Your task to perform on an android device: Show me popular videos on Youtube Image 0: 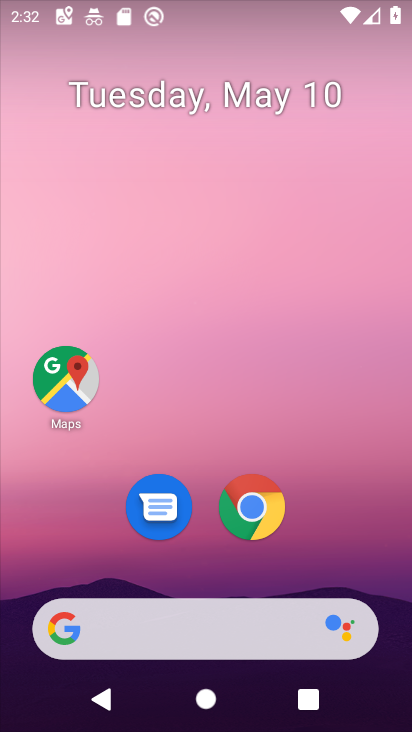
Step 0: drag from (218, 572) to (280, 212)
Your task to perform on an android device: Show me popular videos on Youtube Image 1: 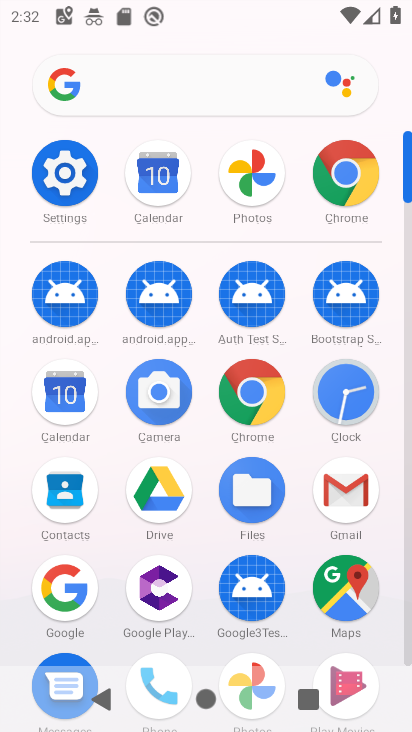
Step 1: drag from (297, 647) to (285, 335)
Your task to perform on an android device: Show me popular videos on Youtube Image 2: 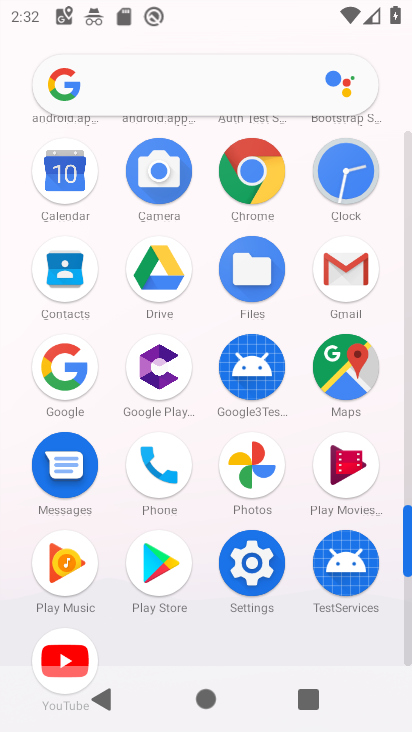
Step 2: click (58, 645)
Your task to perform on an android device: Show me popular videos on Youtube Image 3: 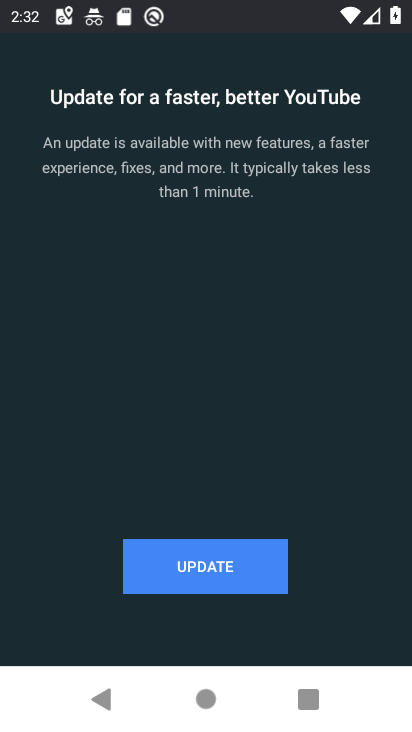
Step 3: click (183, 557)
Your task to perform on an android device: Show me popular videos on Youtube Image 4: 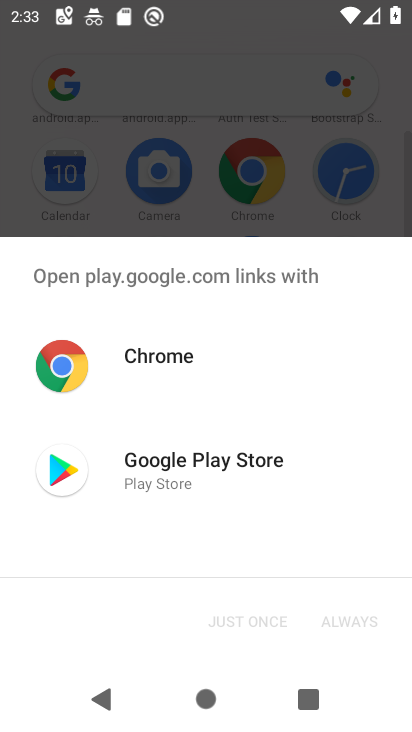
Step 4: click (137, 458)
Your task to perform on an android device: Show me popular videos on Youtube Image 5: 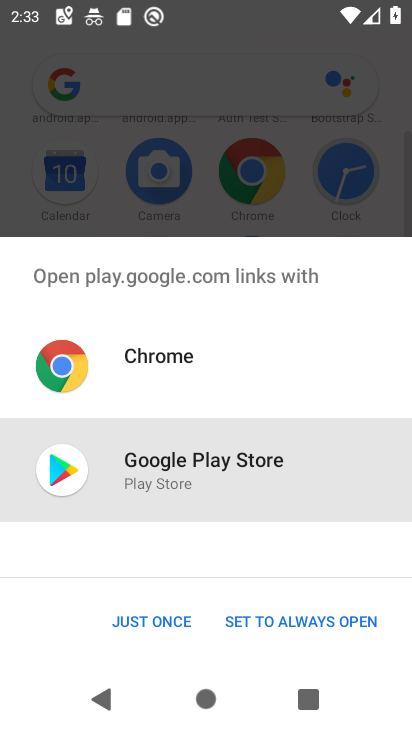
Step 5: drag from (253, 615) to (57, 612)
Your task to perform on an android device: Show me popular videos on Youtube Image 6: 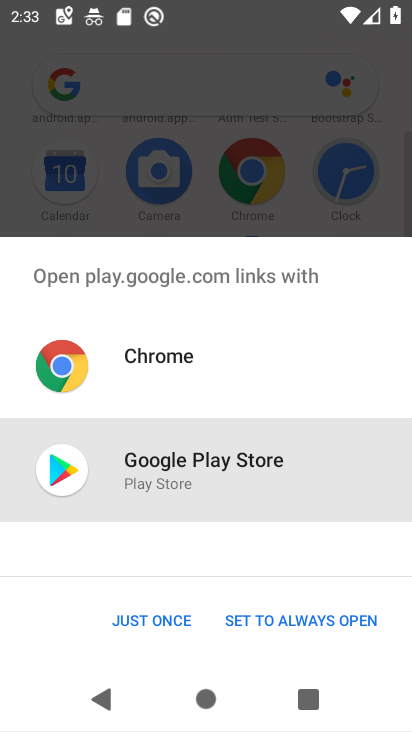
Step 6: click (143, 615)
Your task to perform on an android device: Show me popular videos on Youtube Image 7: 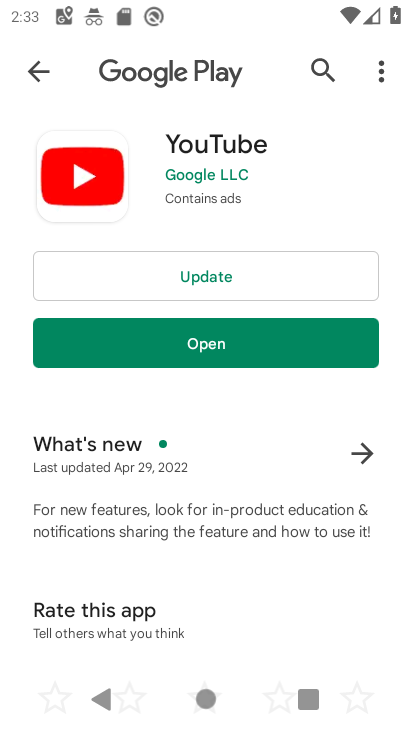
Step 7: click (211, 282)
Your task to perform on an android device: Show me popular videos on Youtube Image 8: 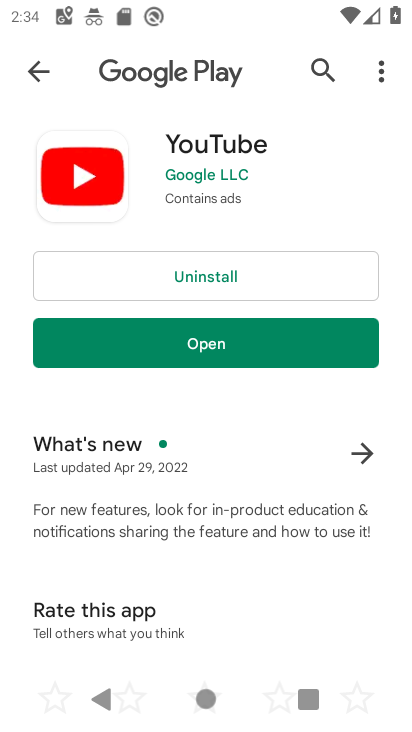
Step 8: click (175, 334)
Your task to perform on an android device: Show me popular videos on Youtube Image 9: 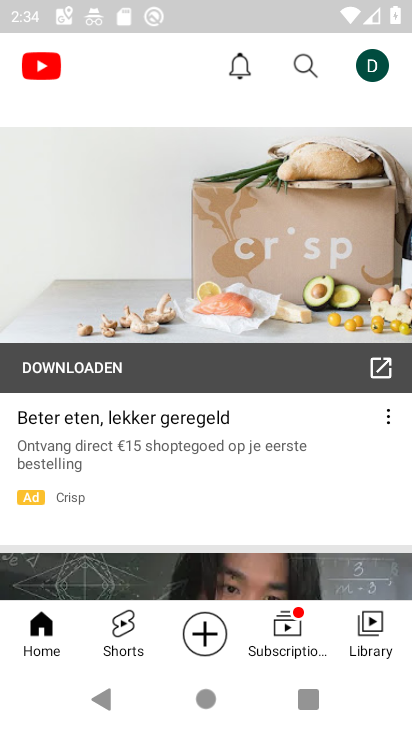
Step 9: click (307, 72)
Your task to perform on an android device: Show me popular videos on Youtube Image 10: 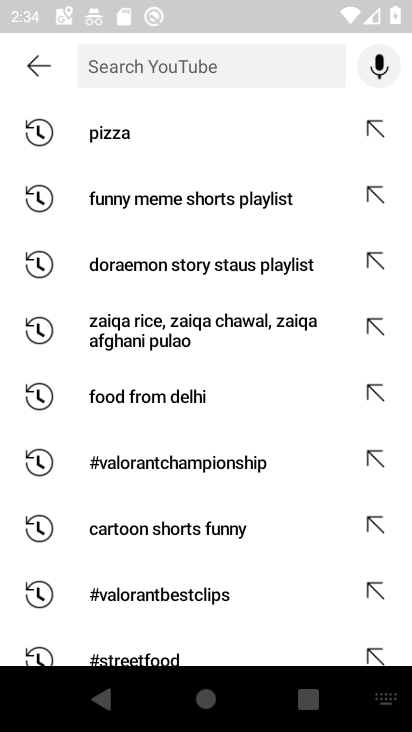
Step 10: type "popular videos"
Your task to perform on an android device: Show me popular videos on Youtube Image 11: 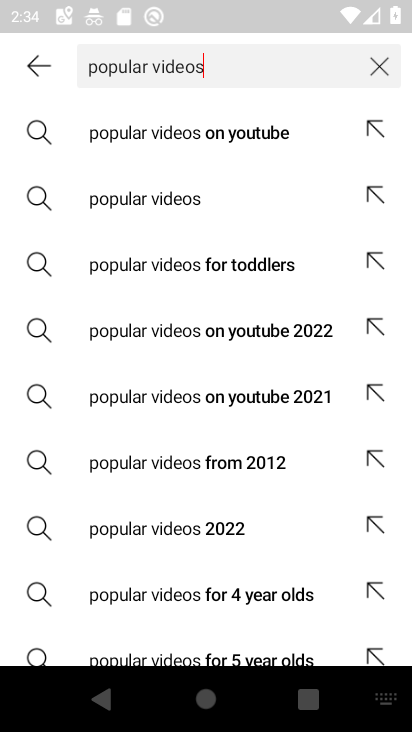
Step 11: click (106, 198)
Your task to perform on an android device: Show me popular videos on Youtube Image 12: 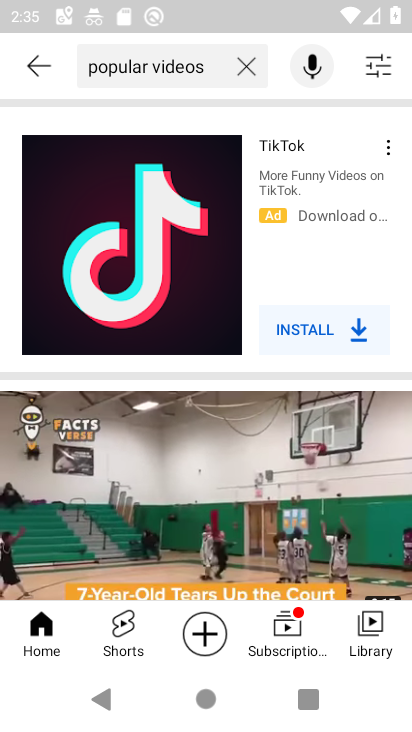
Step 12: task complete